Your task to perform on an android device: Open accessibility settings Image 0: 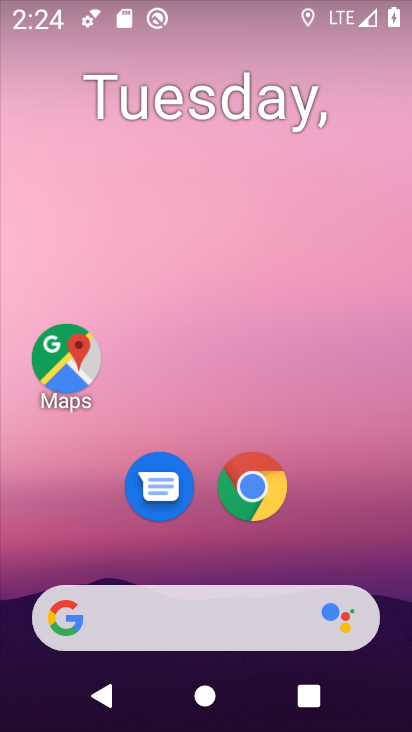
Step 0: press home button
Your task to perform on an android device: Open accessibility settings Image 1: 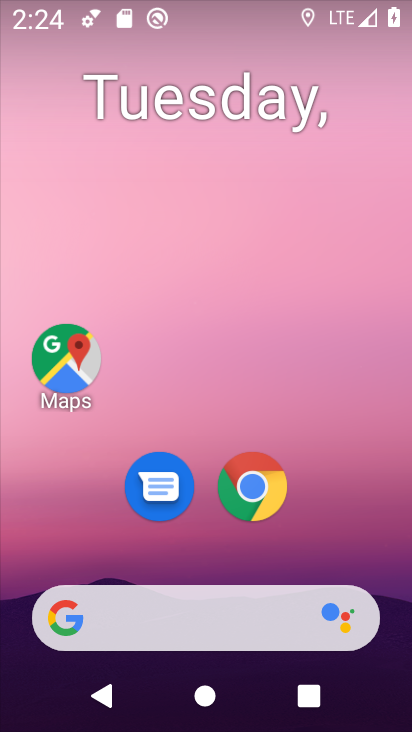
Step 1: drag from (359, 565) to (359, 153)
Your task to perform on an android device: Open accessibility settings Image 2: 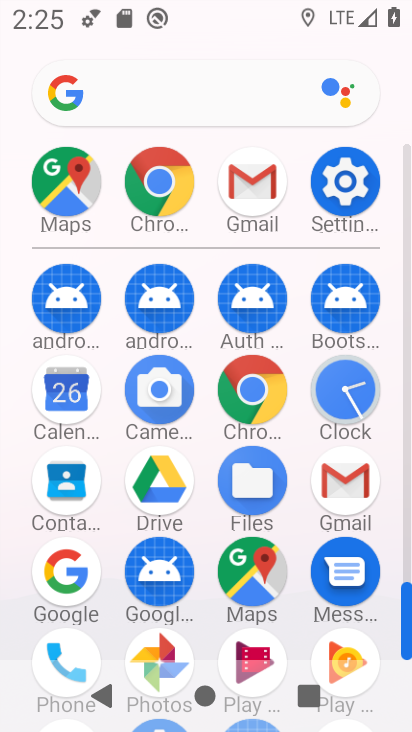
Step 2: click (372, 185)
Your task to perform on an android device: Open accessibility settings Image 3: 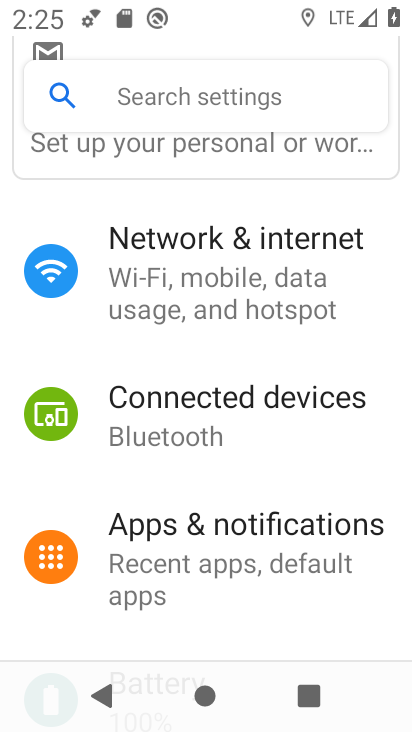
Step 3: drag from (304, 563) to (281, 270)
Your task to perform on an android device: Open accessibility settings Image 4: 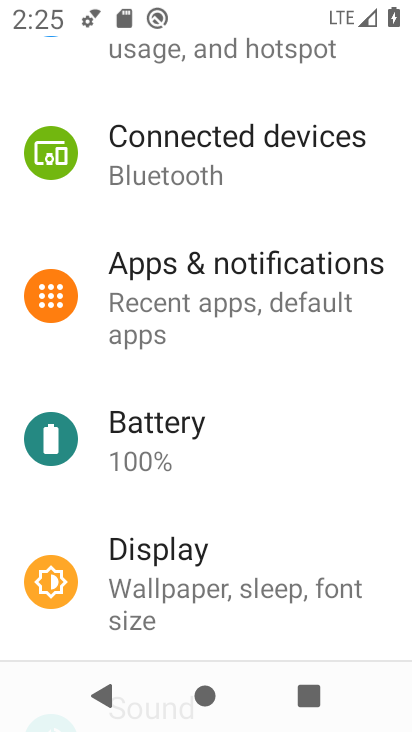
Step 4: drag from (324, 474) to (332, 359)
Your task to perform on an android device: Open accessibility settings Image 5: 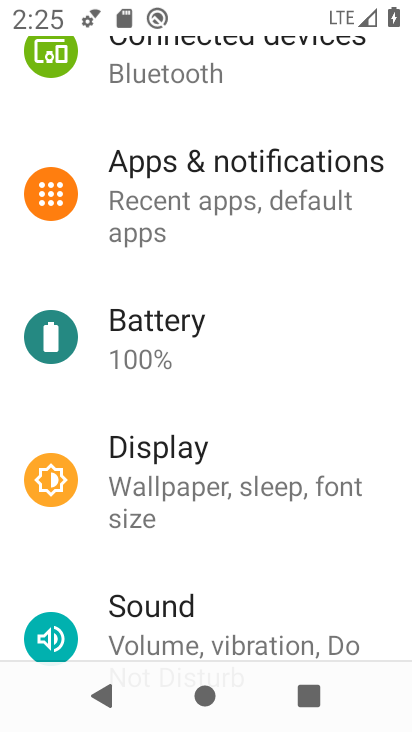
Step 5: drag from (345, 542) to (347, 422)
Your task to perform on an android device: Open accessibility settings Image 6: 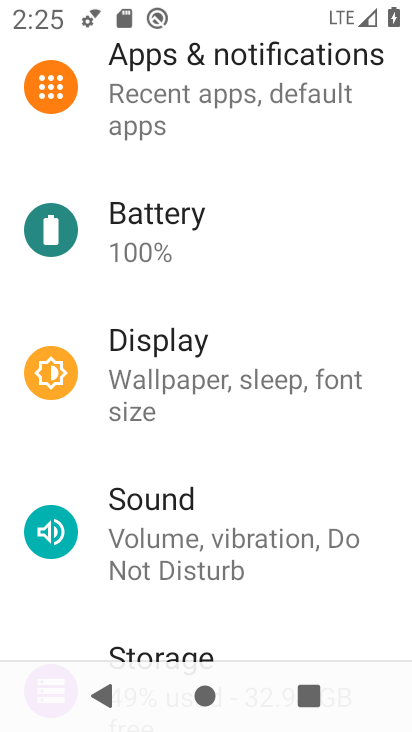
Step 6: drag from (364, 600) to (365, 491)
Your task to perform on an android device: Open accessibility settings Image 7: 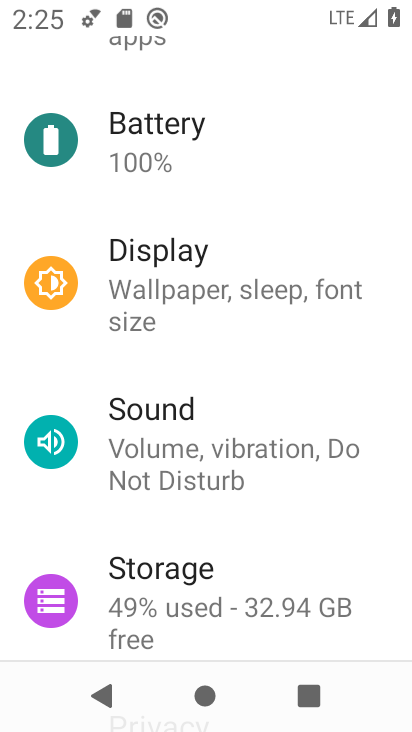
Step 7: drag from (378, 614) to (379, 461)
Your task to perform on an android device: Open accessibility settings Image 8: 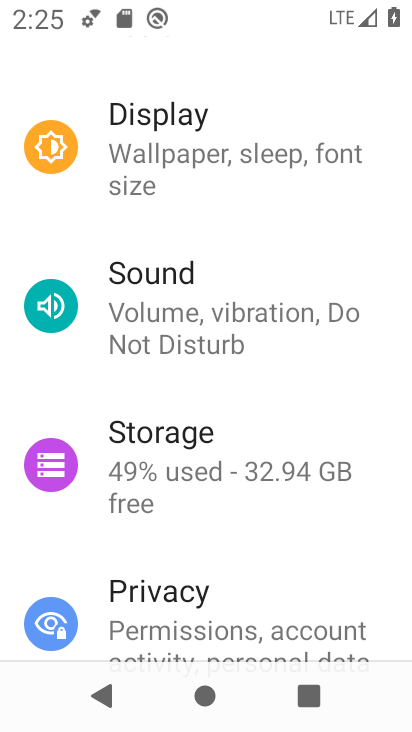
Step 8: drag from (355, 588) to (355, 489)
Your task to perform on an android device: Open accessibility settings Image 9: 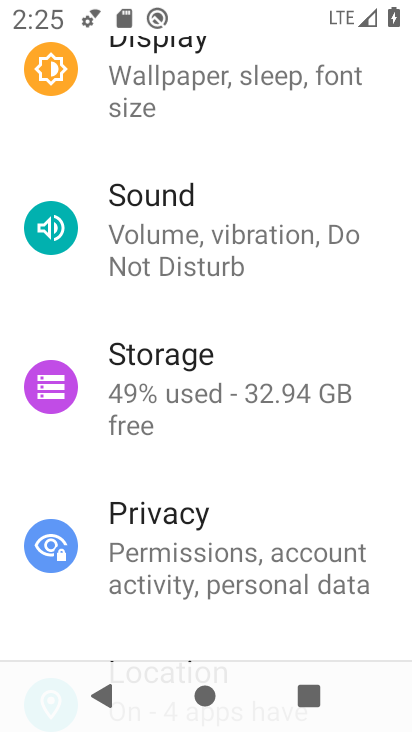
Step 9: drag from (357, 627) to (359, 516)
Your task to perform on an android device: Open accessibility settings Image 10: 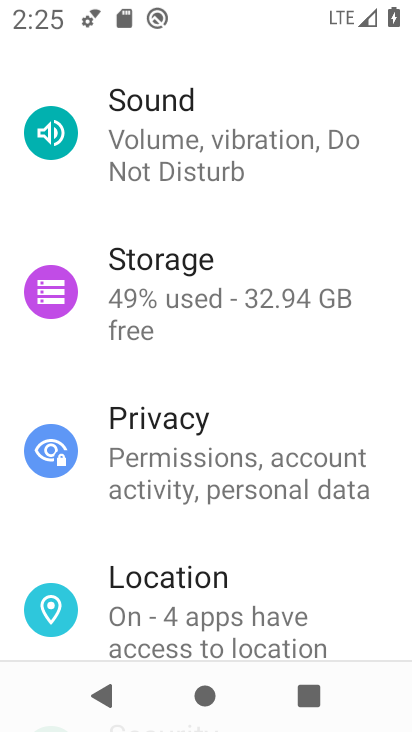
Step 10: drag from (343, 579) to (339, 471)
Your task to perform on an android device: Open accessibility settings Image 11: 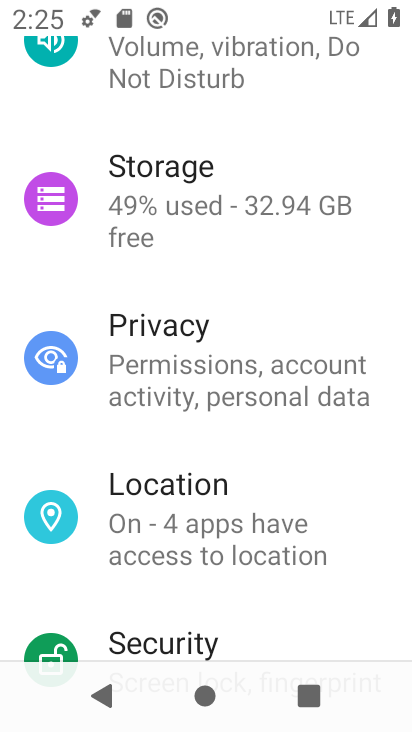
Step 11: drag from (358, 600) to (358, 419)
Your task to perform on an android device: Open accessibility settings Image 12: 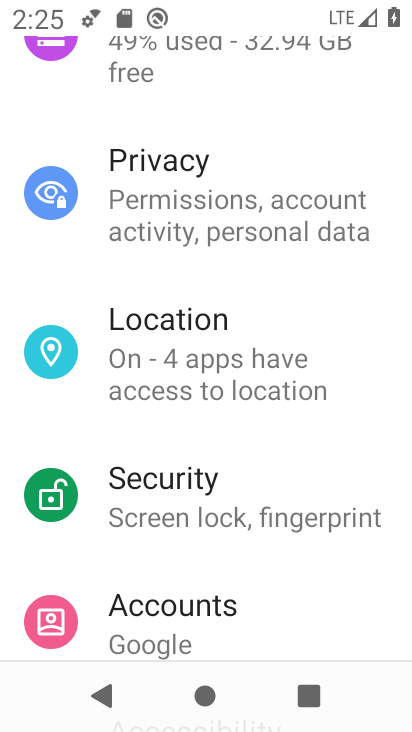
Step 12: drag from (353, 576) to (339, 420)
Your task to perform on an android device: Open accessibility settings Image 13: 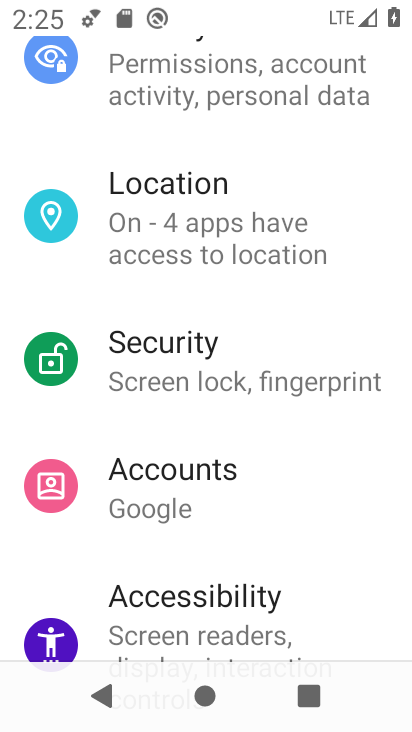
Step 13: drag from (324, 605) to (323, 446)
Your task to perform on an android device: Open accessibility settings Image 14: 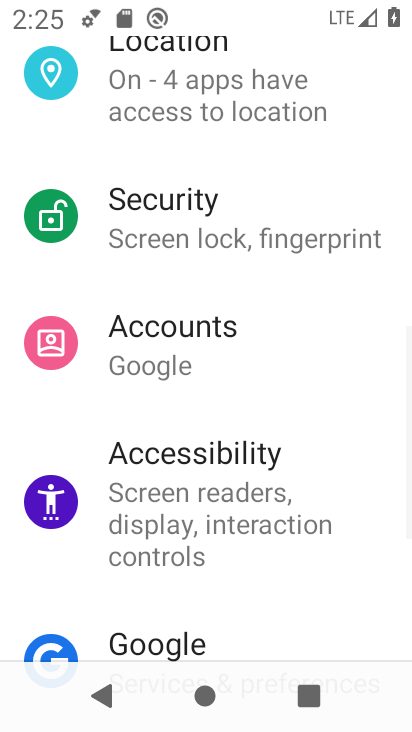
Step 14: click (280, 489)
Your task to perform on an android device: Open accessibility settings Image 15: 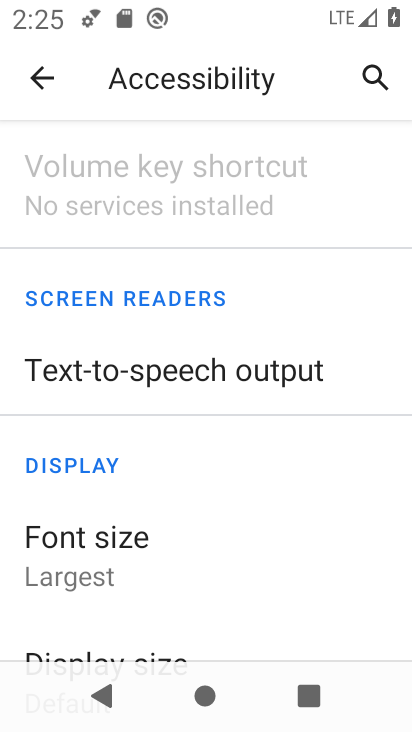
Step 15: task complete